Your task to perform on an android device: turn off airplane mode Image 0: 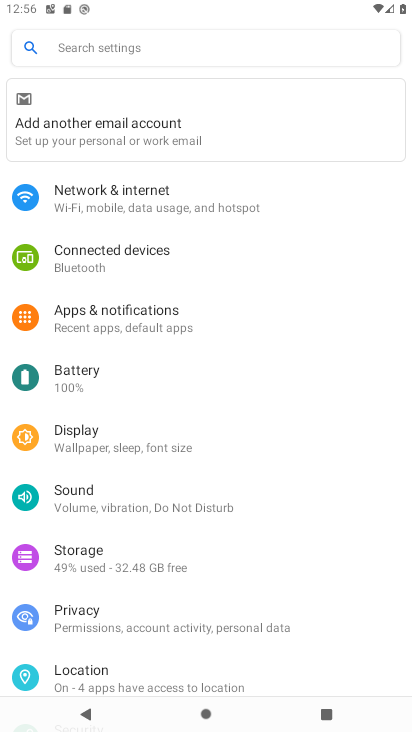
Step 0: click (133, 206)
Your task to perform on an android device: turn off airplane mode Image 1: 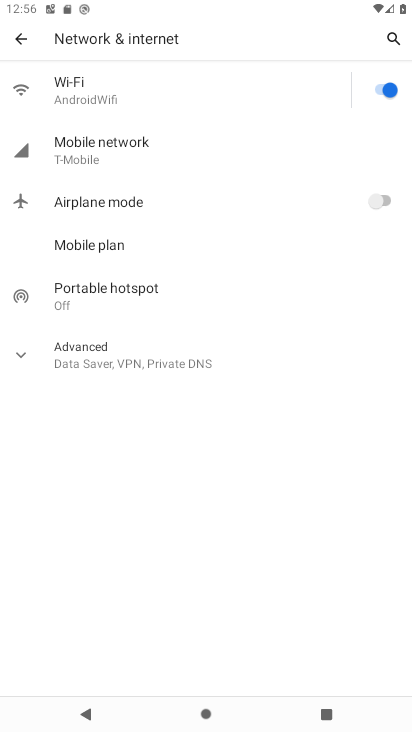
Step 1: task complete